Your task to perform on an android device: When is my next appointment? Image 0: 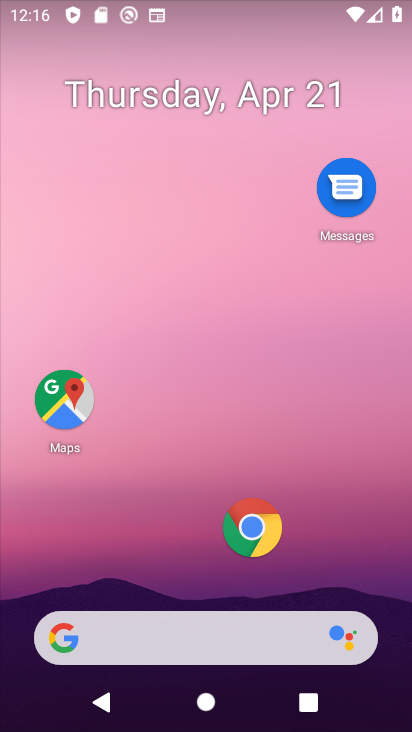
Step 0: drag from (380, 545) to (392, 18)
Your task to perform on an android device: When is my next appointment? Image 1: 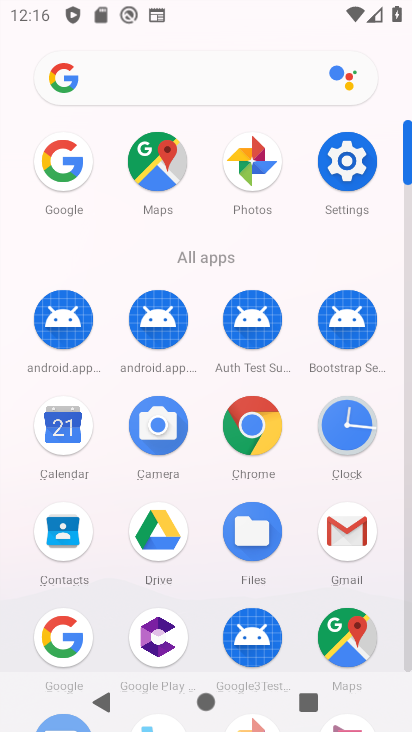
Step 1: click (50, 416)
Your task to perform on an android device: When is my next appointment? Image 2: 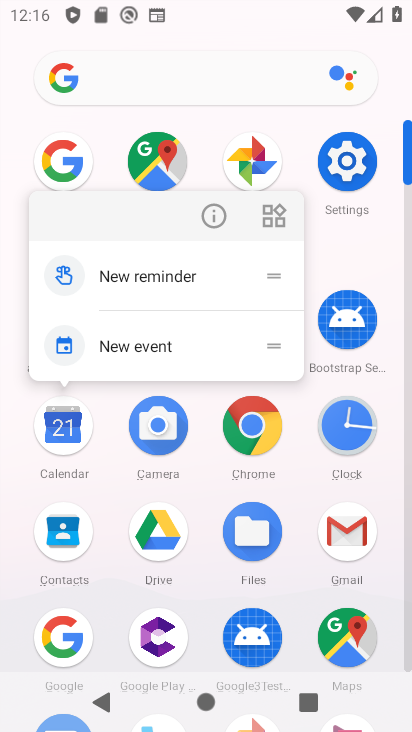
Step 2: click (50, 415)
Your task to perform on an android device: When is my next appointment? Image 3: 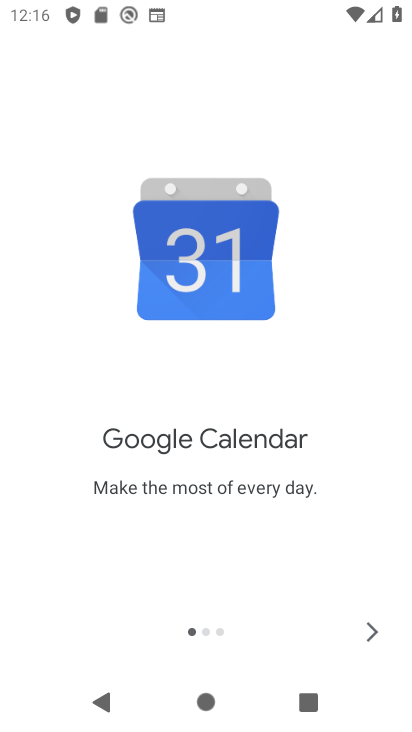
Step 3: click (382, 621)
Your task to perform on an android device: When is my next appointment? Image 4: 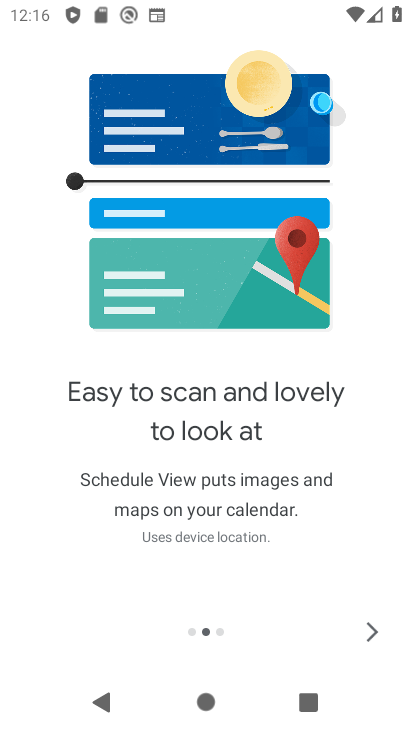
Step 4: click (382, 620)
Your task to perform on an android device: When is my next appointment? Image 5: 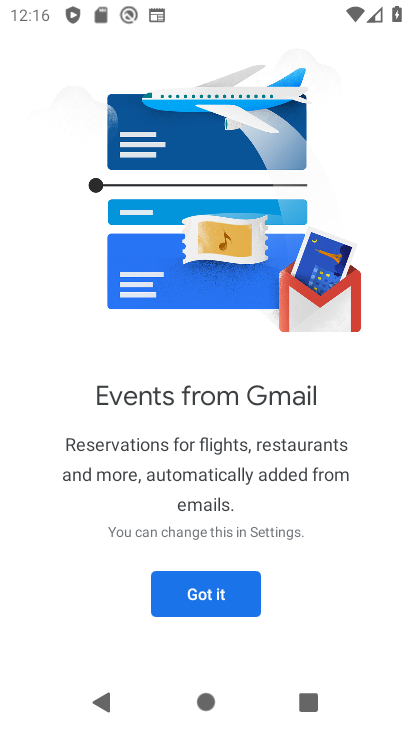
Step 5: click (183, 583)
Your task to perform on an android device: When is my next appointment? Image 6: 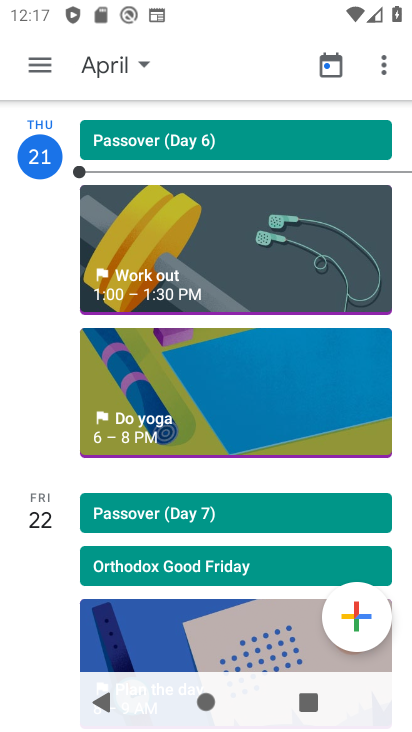
Step 6: click (112, 62)
Your task to perform on an android device: When is my next appointment? Image 7: 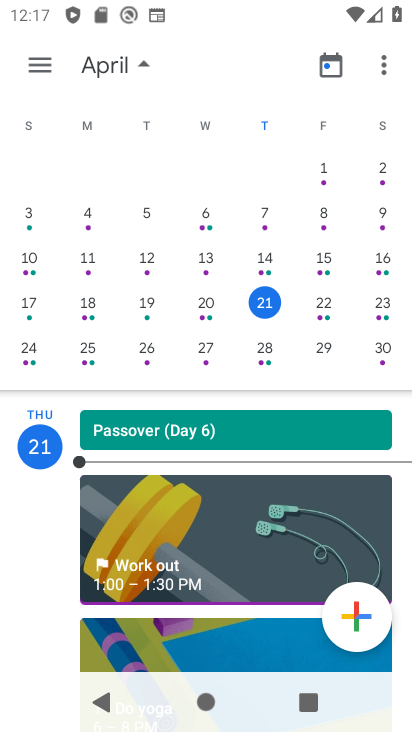
Step 7: click (330, 309)
Your task to perform on an android device: When is my next appointment? Image 8: 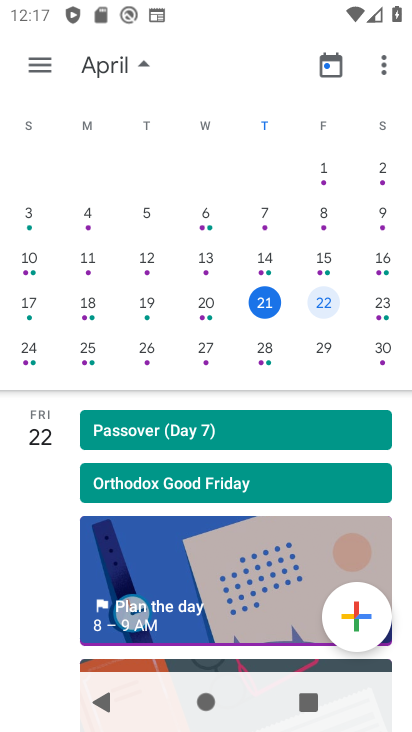
Step 8: task complete